Your task to perform on an android device: open app "Truecaller" (install if not already installed) Image 0: 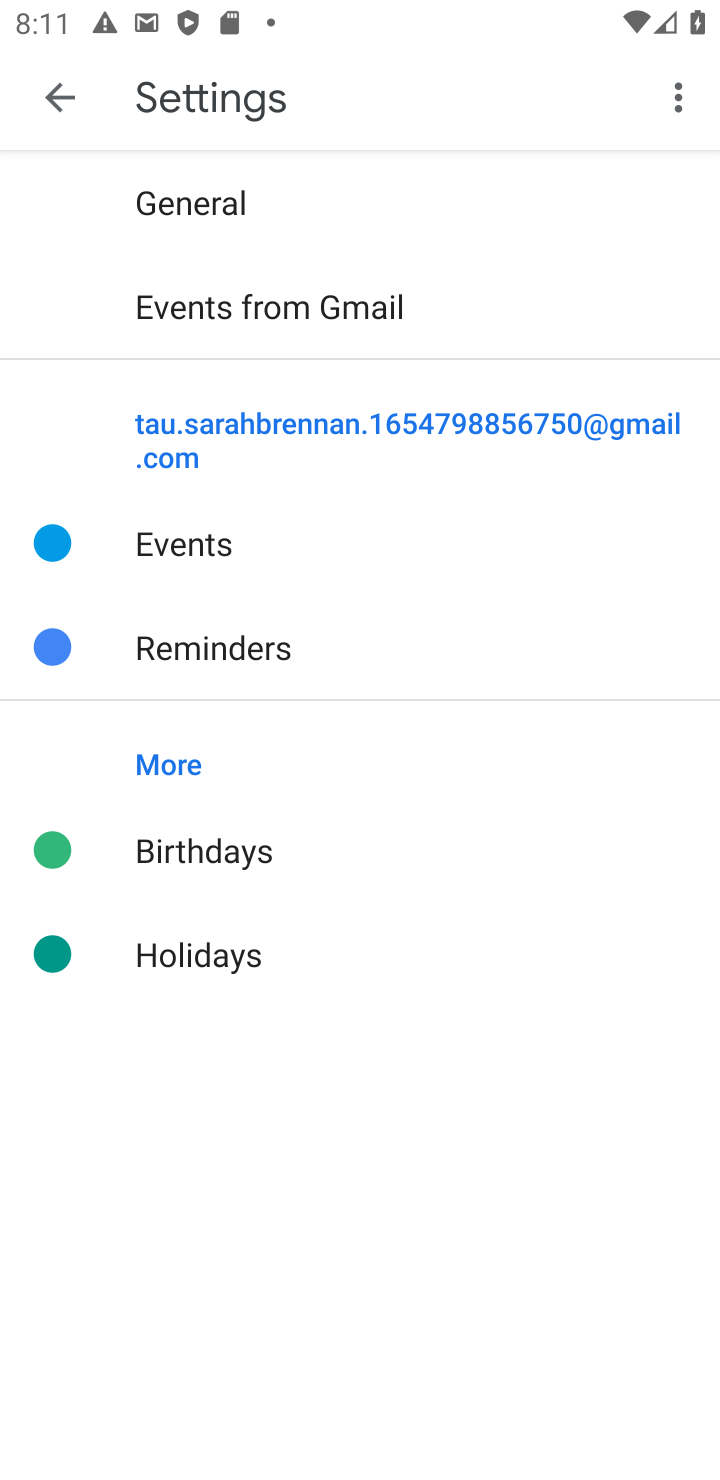
Step 0: click (75, 99)
Your task to perform on an android device: open app "Truecaller" (install if not already installed) Image 1: 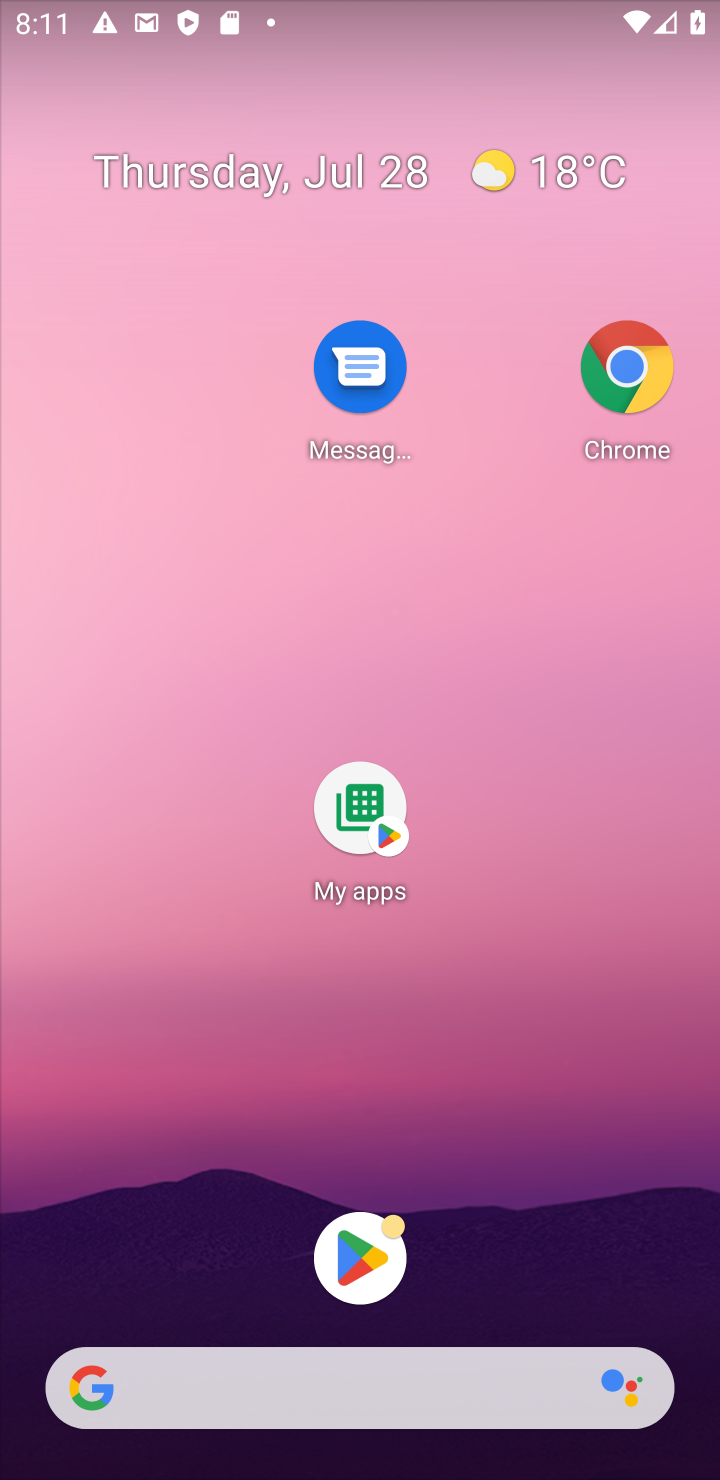
Step 1: drag from (257, 1388) to (521, 232)
Your task to perform on an android device: open app "Truecaller" (install if not already installed) Image 2: 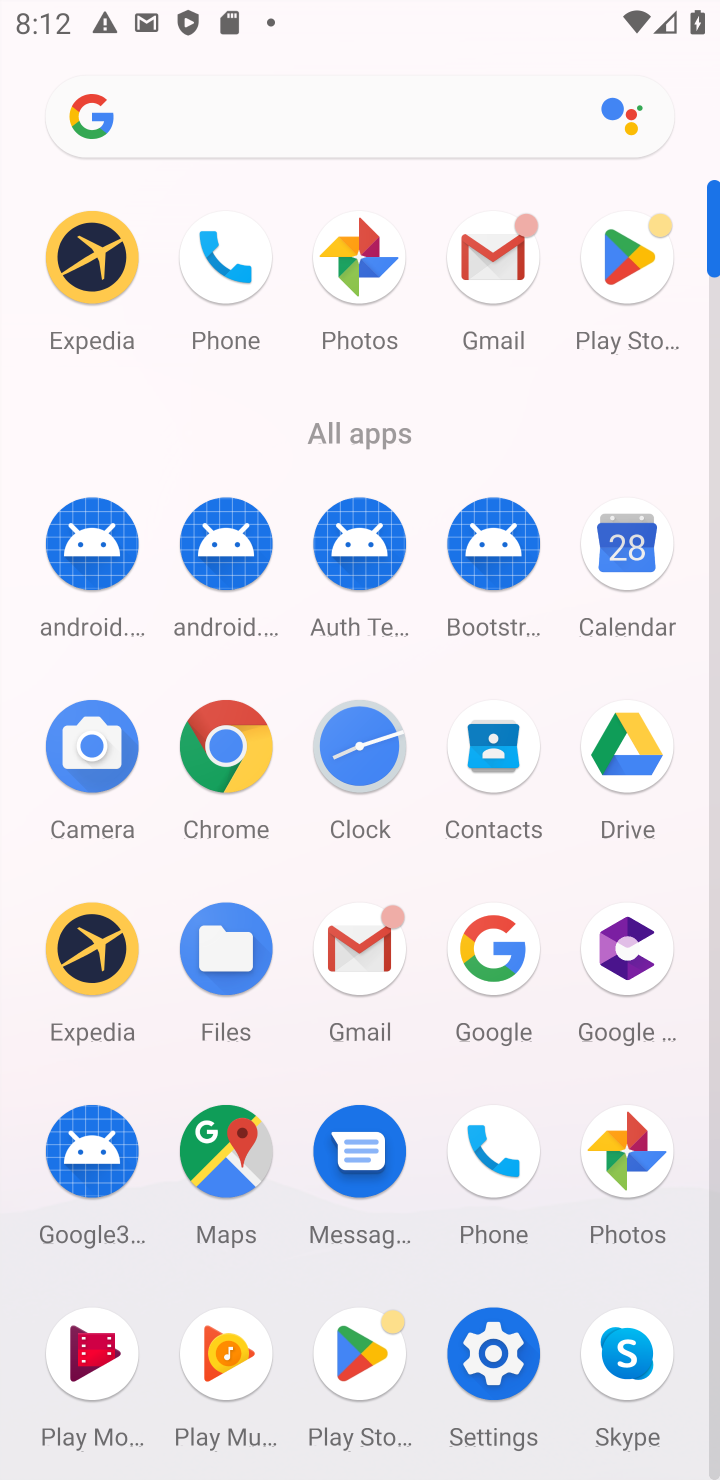
Step 2: click (639, 252)
Your task to perform on an android device: open app "Truecaller" (install if not already installed) Image 3: 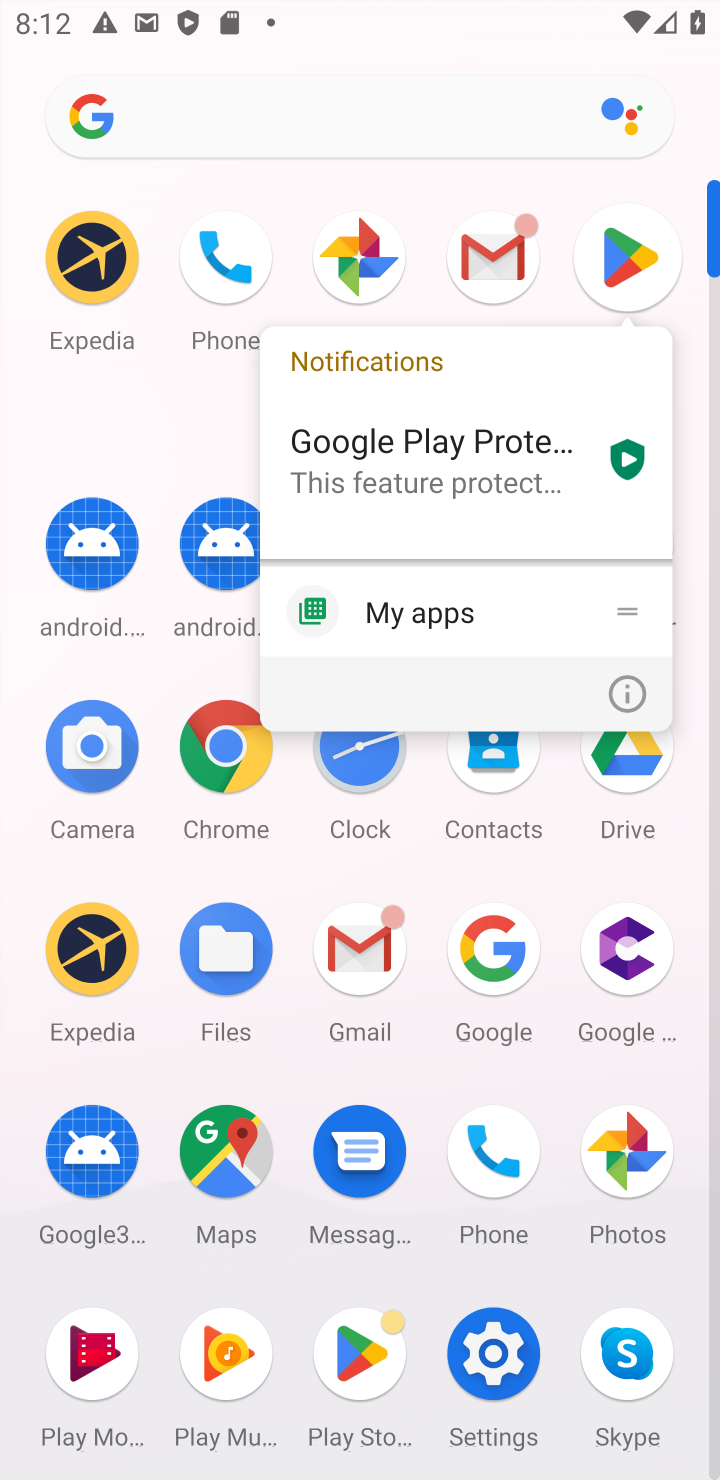
Step 3: click (639, 252)
Your task to perform on an android device: open app "Truecaller" (install if not already installed) Image 4: 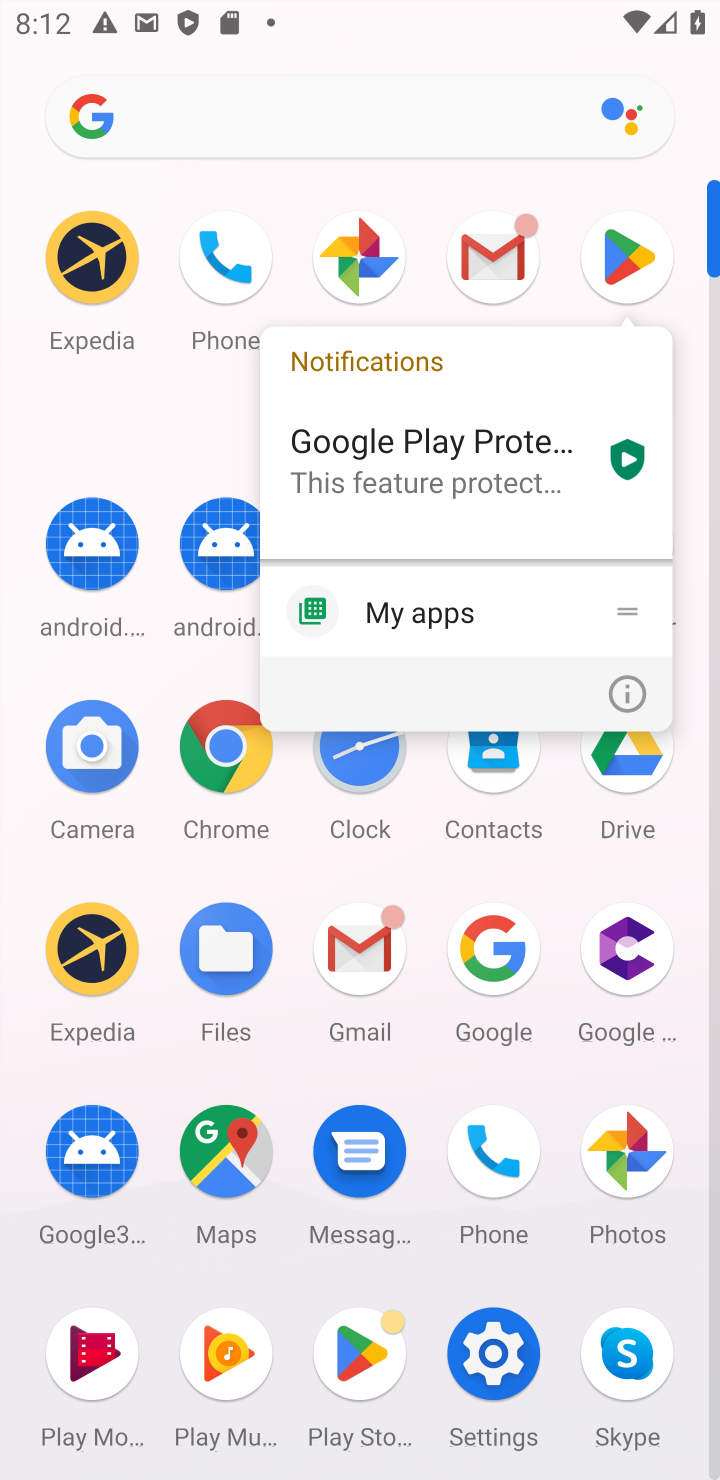
Step 4: click (639, 252)
Your task to perform on an android device: open app "Truecaller" (install if not already installed) Image 5: 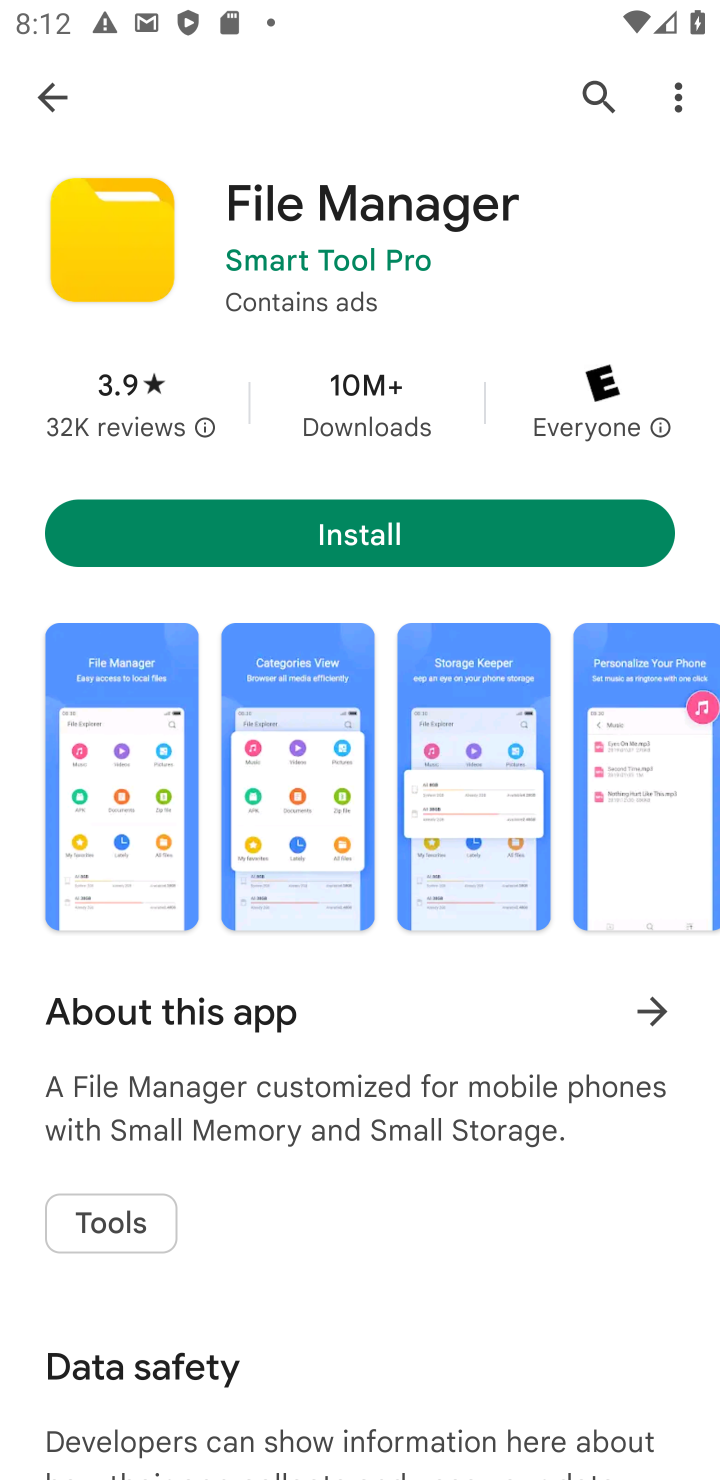
Step 5: click (639, 252)
Your task to perform on an android device: open app "Truecaller" (install if not already installed) Image 6: 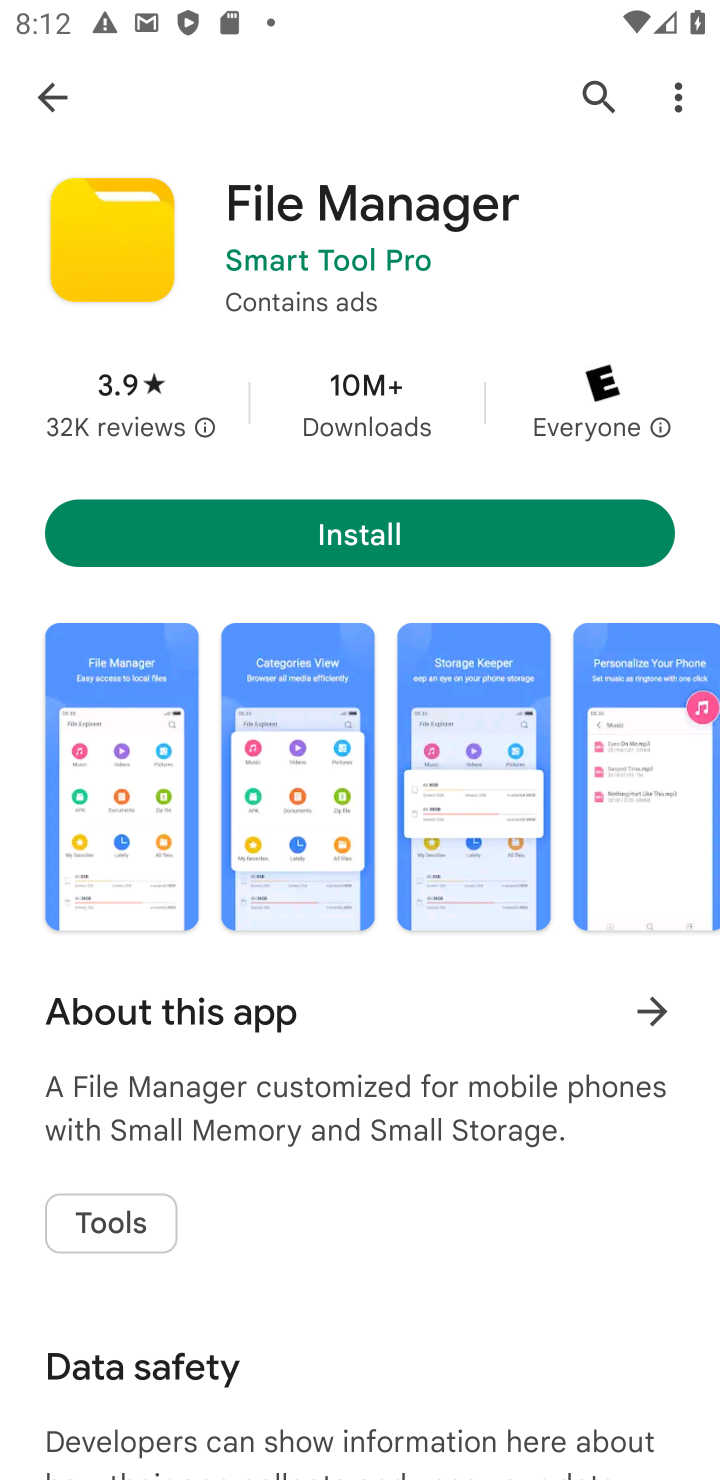
Step 6: click (597, 96)
Your task to perform on an android device: open app "Truecaller" (install if not already installed) Image 7: 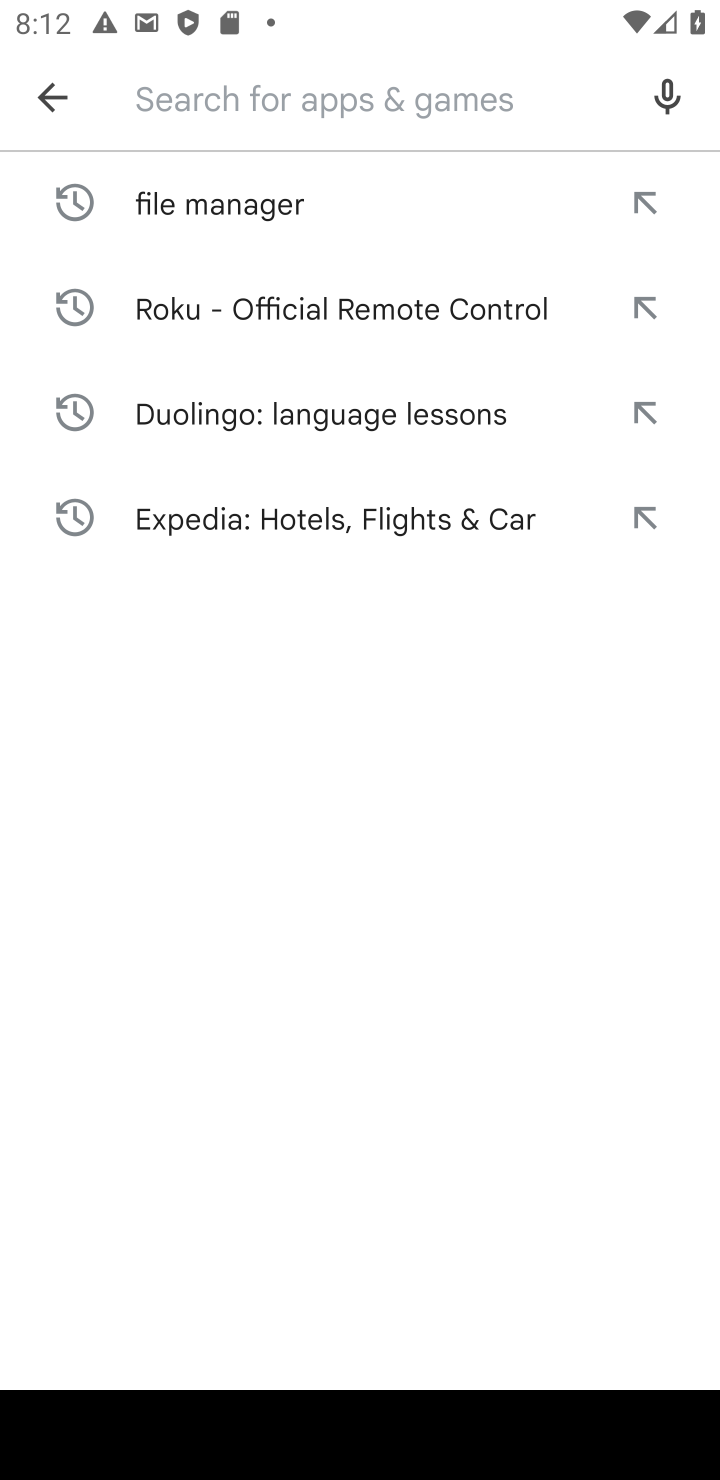
Step 7: type "truecaller"
Your task to perform on an android device: open app "Truecaller" (install if not already installed) Image 8: 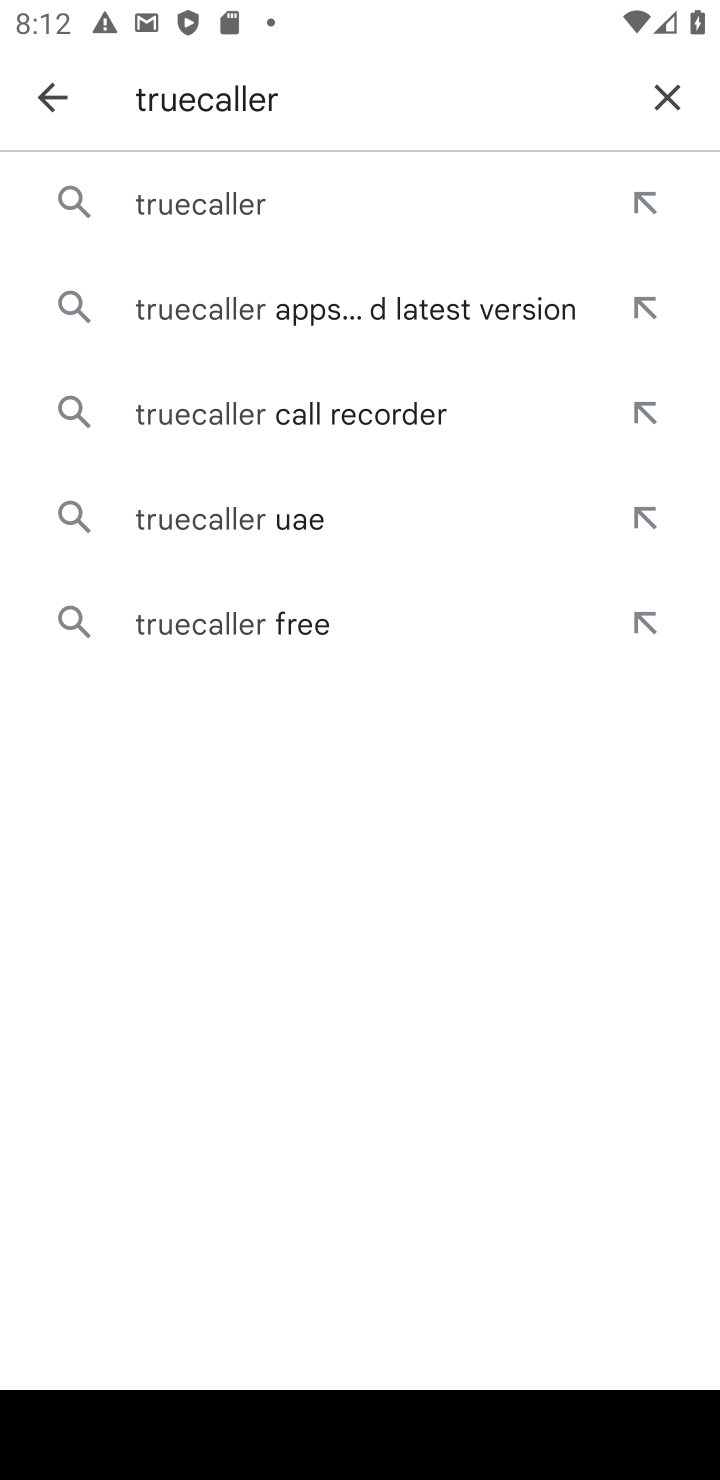
Step 8: click (215, 178)
Your task to perform on an android device: open app "Truecaller" (install if not already installed) Image 9: 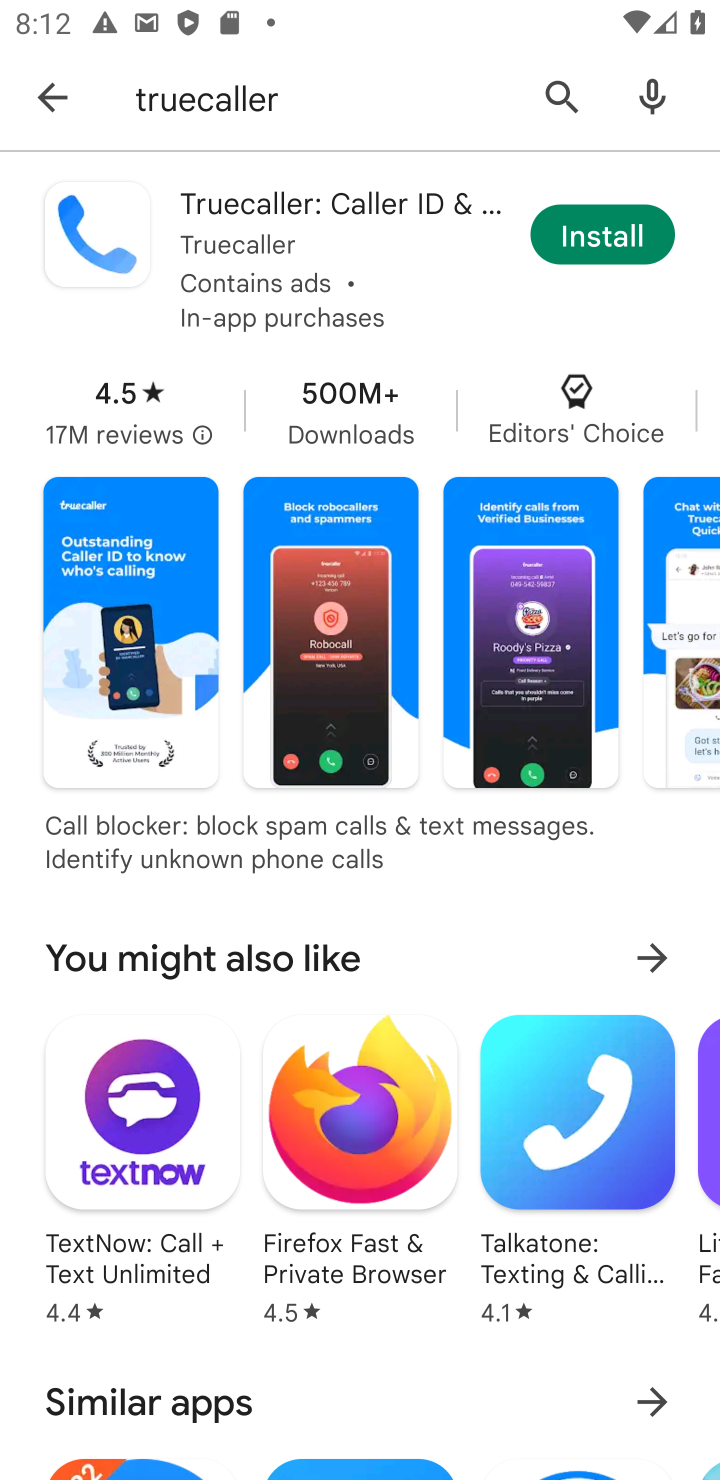
Step 9: click (654, 254)
Your task to perform on an android device: open app "Truecaller" (install if not already installed) Image 10: 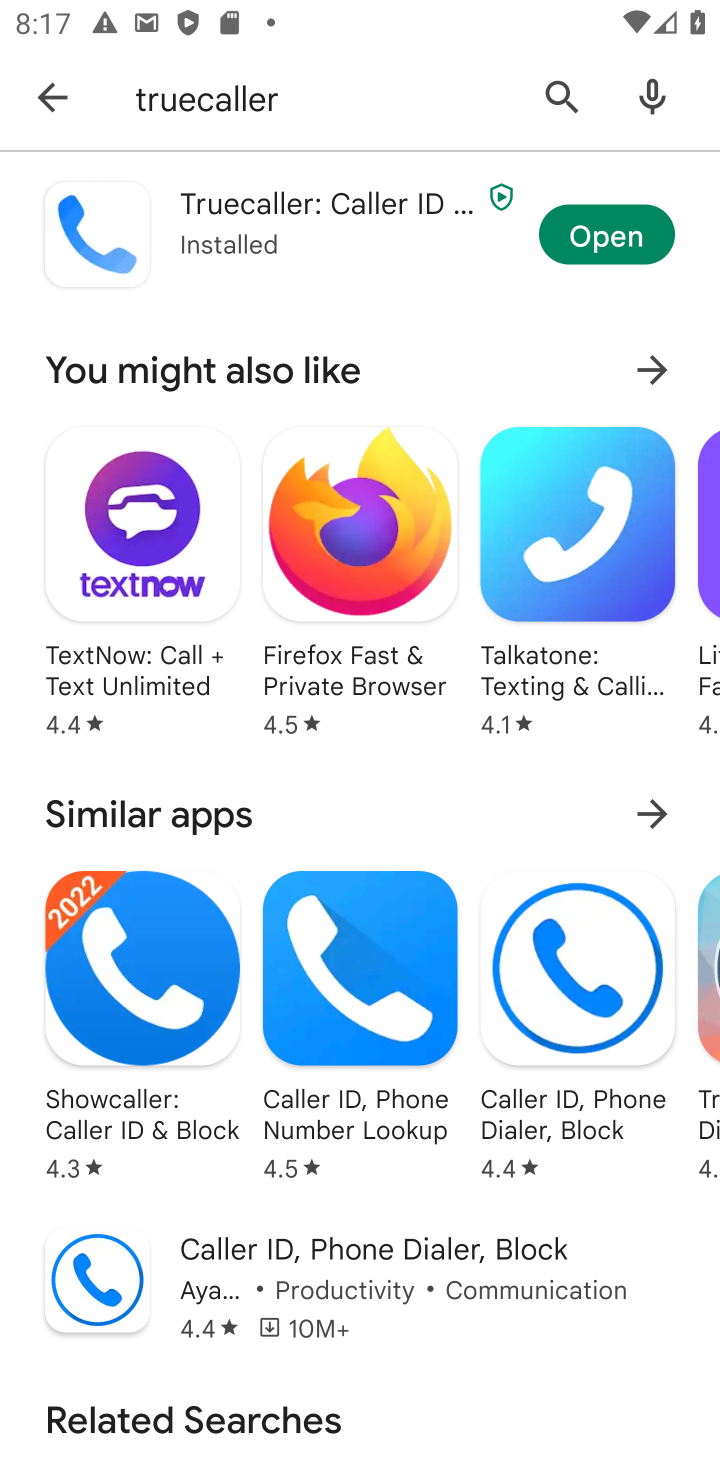
Step 10: click (645, 231)
Your task to perform on an android device: open app "Truecaller" (install if not already installed) Image 11: 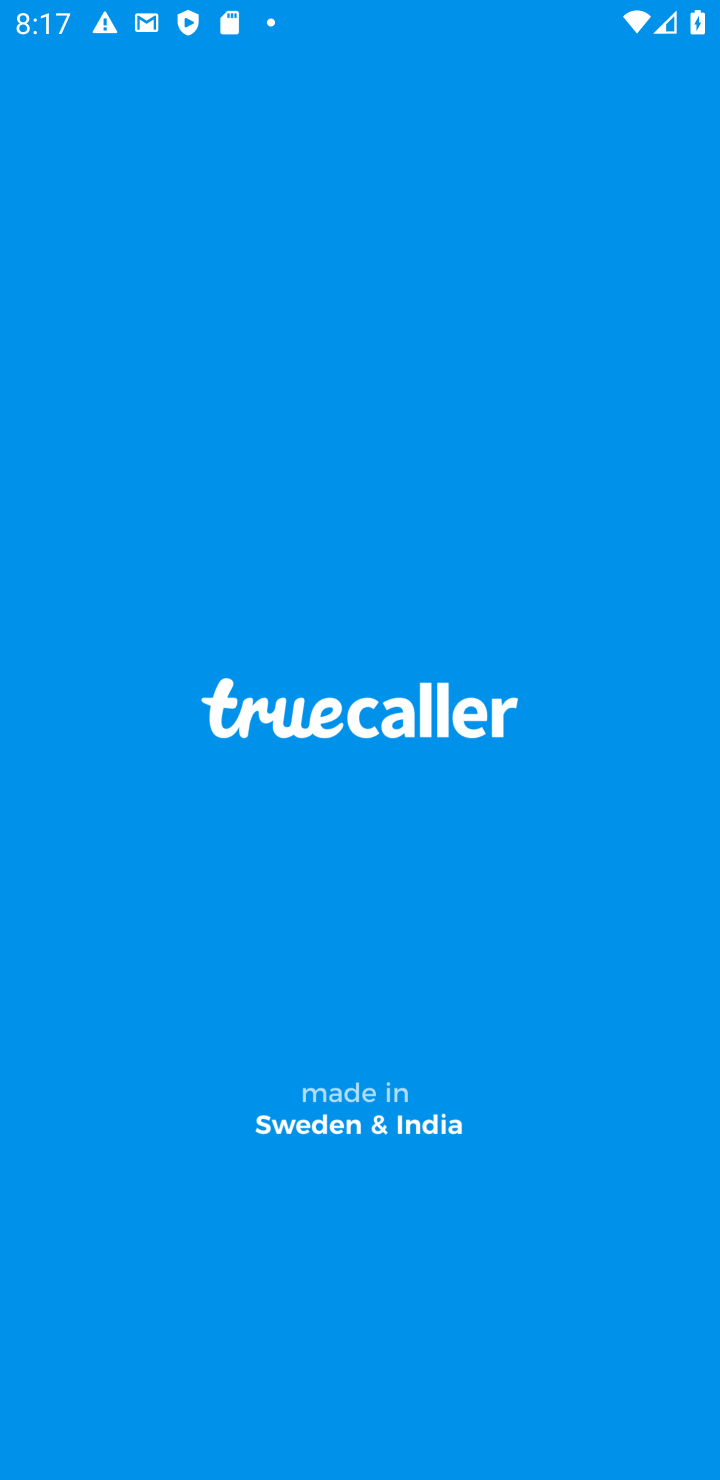
Step 11: task complete